Your task to perform on an android device: turn off airplane mode Image 0: 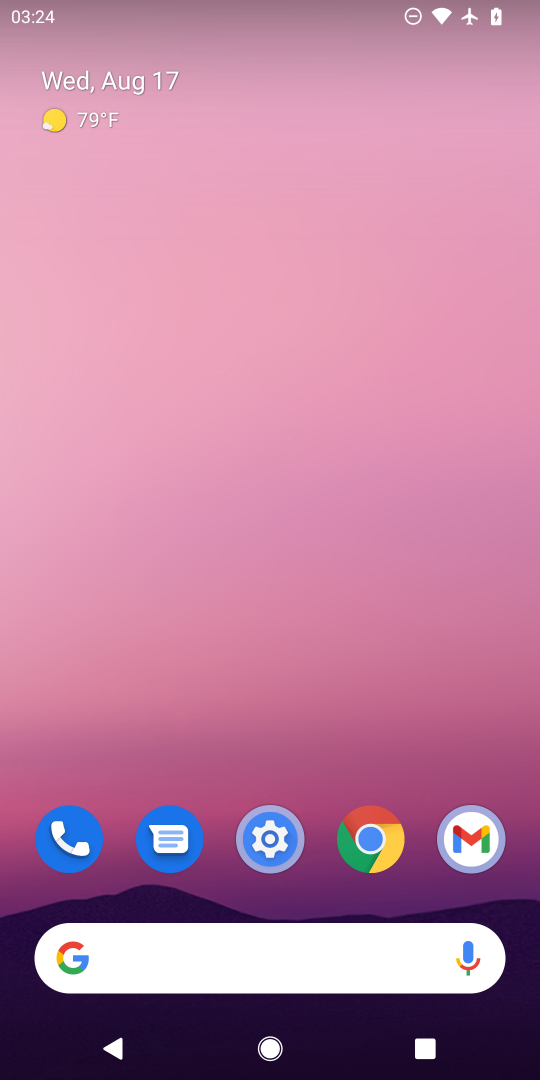
Step 0: drag from (348, 814) to (304, 99)
Your task to perform on an android device: turn off airplane mode Image 1: 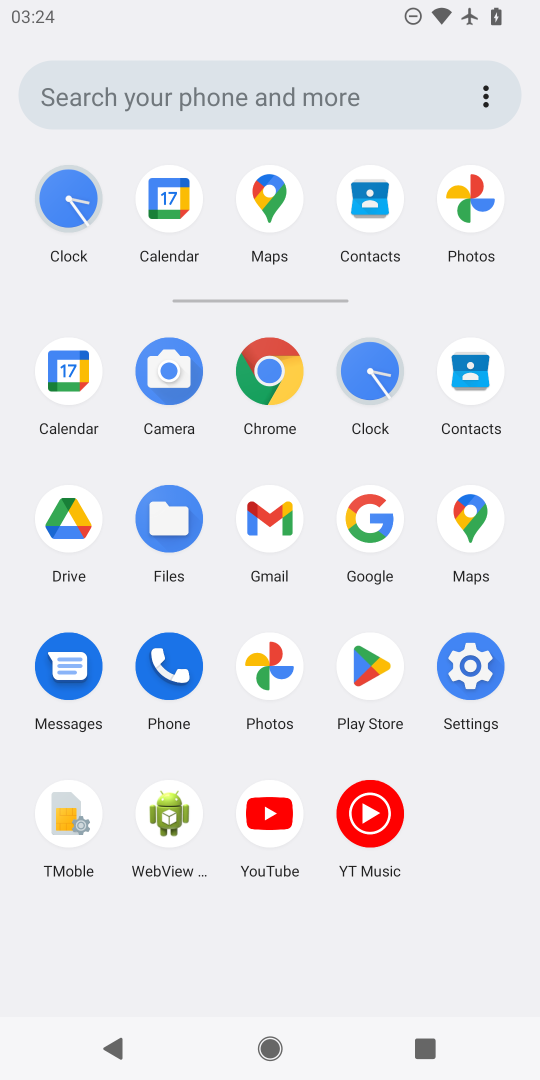
Step 1: click (478, 671)
Your task to perform on an android device: turn off airplane mode Image 2: 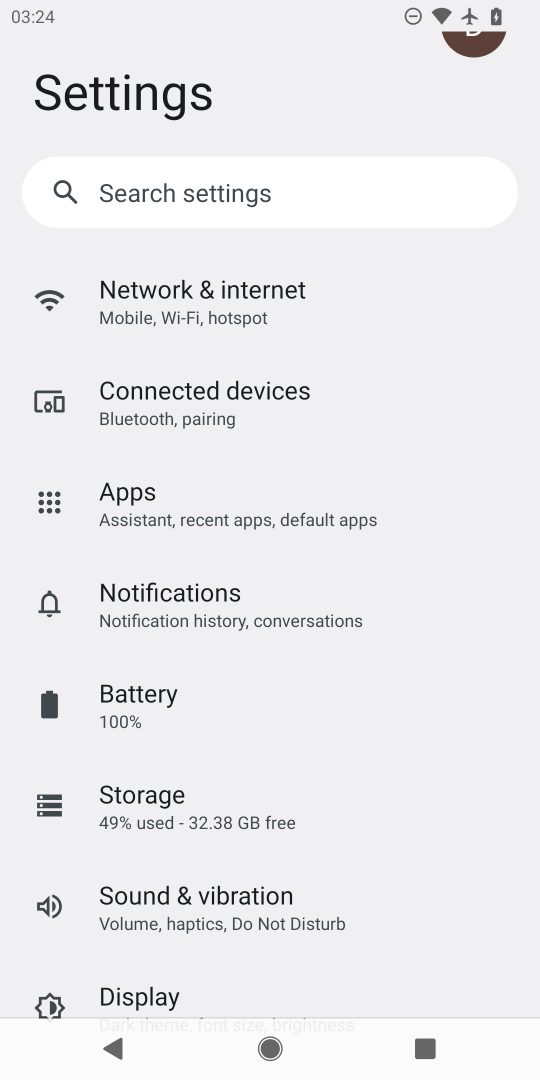
Step 2: click (245, 290)
Your task to perform on an android device: turn off airplane mode Image 3: 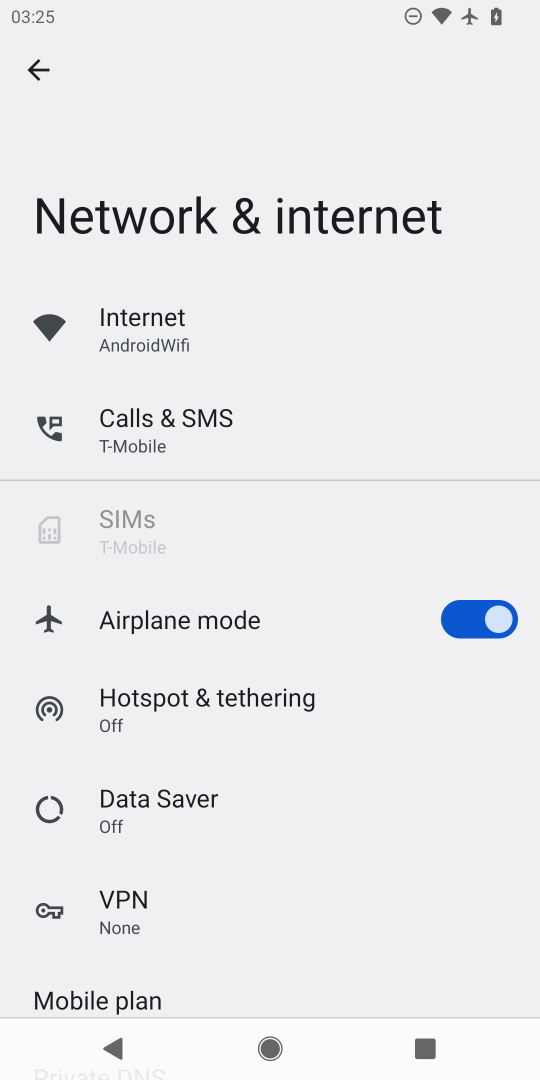
Step 3: click (492, 614)
Your task to perform on an android device: turn off airplane mode Image 4: 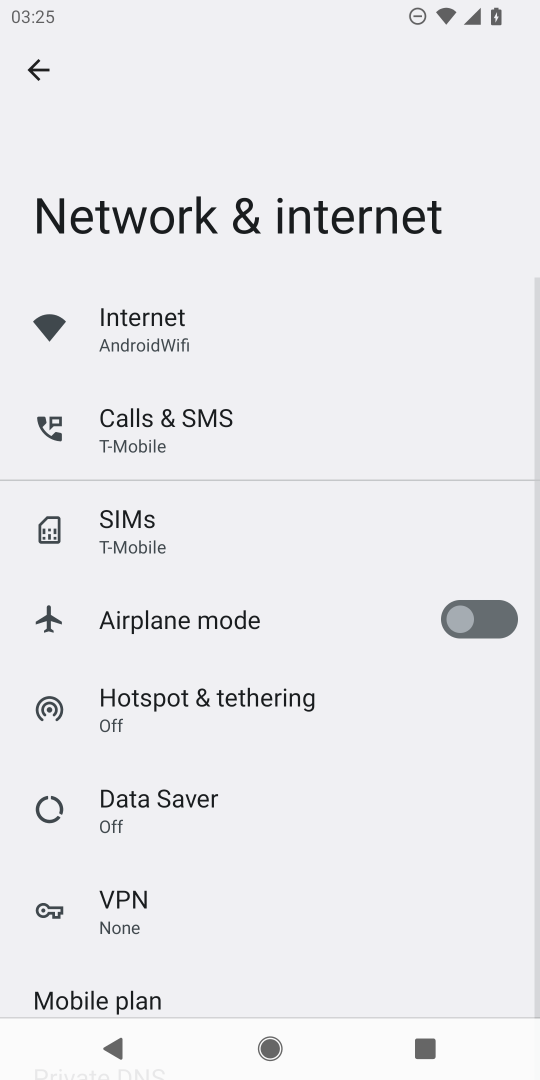
Step 4: task complete